Your task to perform on an android device: Search for Italian restaurants on Maps Image 0: 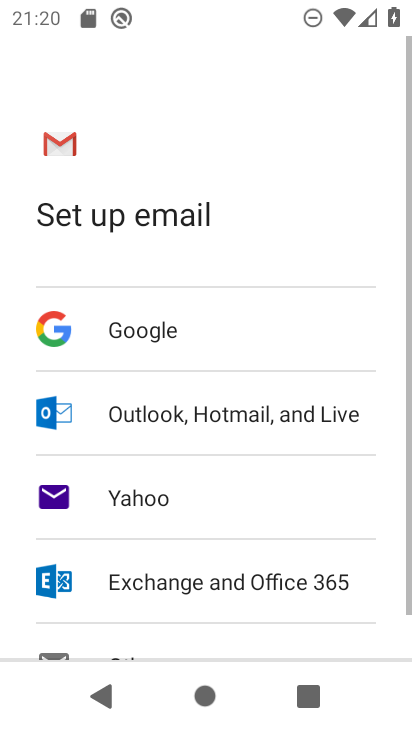
Step 0: press home button
Your task to perform on an android device: Search for Italian restaurants on Maps Image 1: 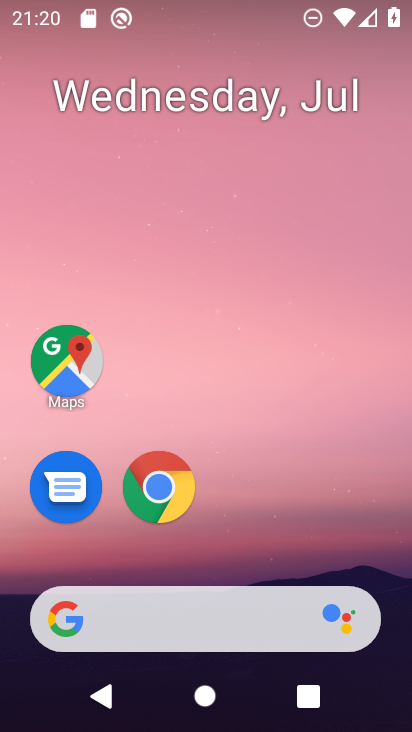
Step 1: drag from (378, 527) to (383, 51)
Your task to perform on an android device: Search for Italian restaurants on Maps Image 2: 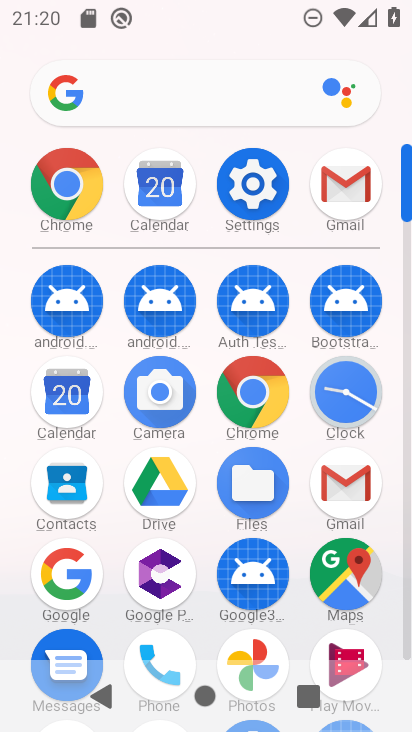
Step 2: click (352, 565)
Your task to perform on an android device: Search for Italian restaurants on Maps Image 3: 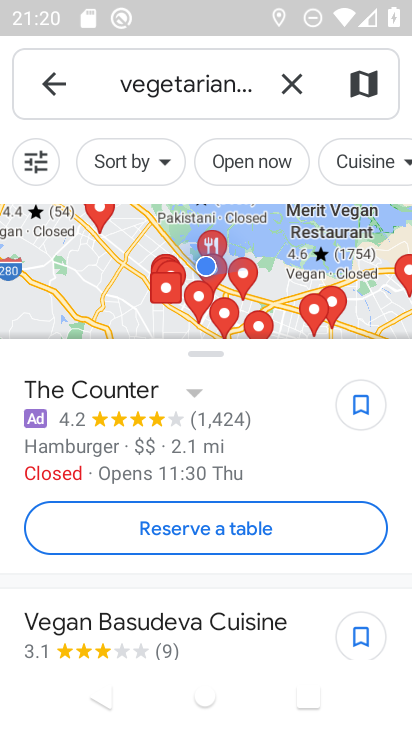
Step 3: press back button
Your task to perform on an android device: Search for Italian restaurants on Maps Image 4: 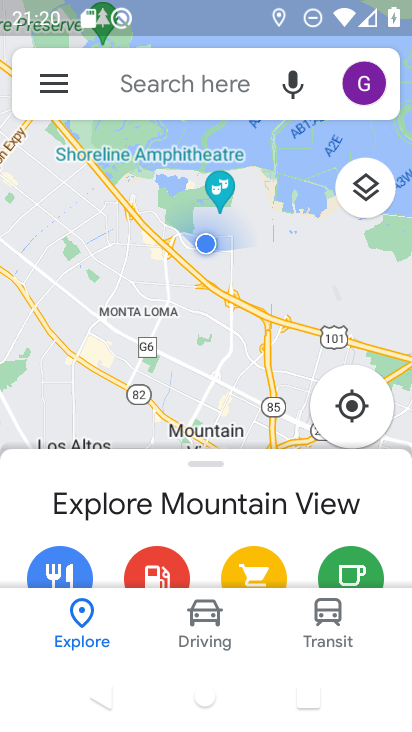
Step 4: click (221, 94)
Your task to perform on an android device: Search for Italian restaurants on Maps Image 5: 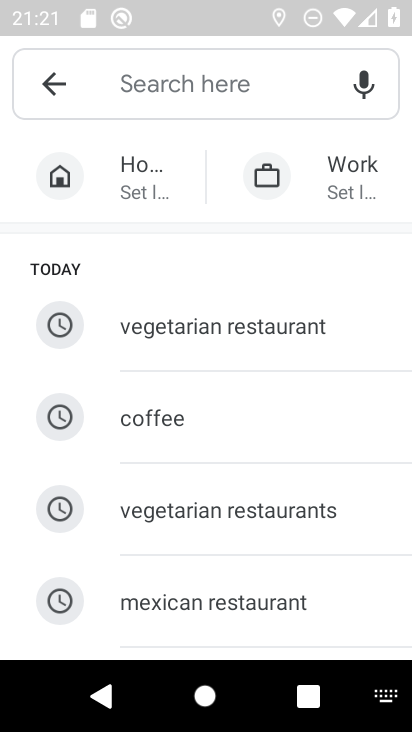
Step 5: type "italian restaurants"
Your task to perform on an android device: Search for Italian restaurants on Maps Image 6: 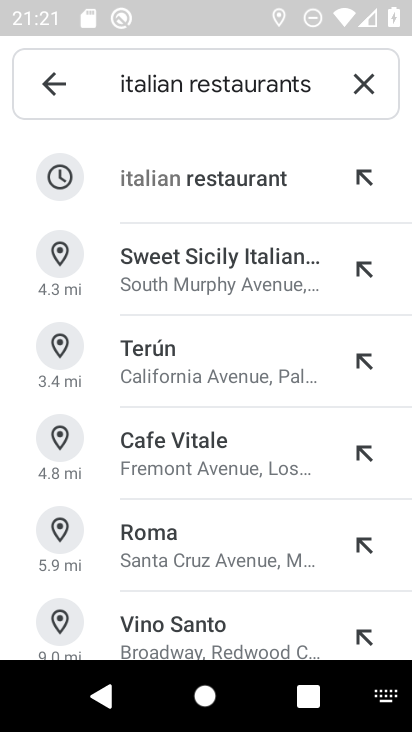
Step 6: click (258, 192)
Your task to perform on an android device: Search for Italian restaurants on Maps Image 7: 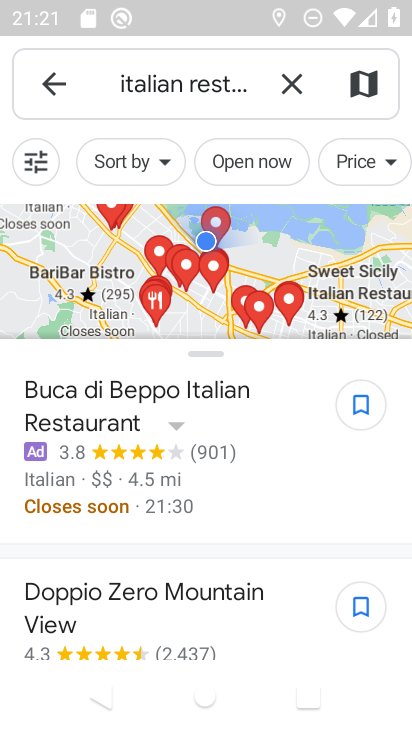
Step 7: task complete